Your task to perform on an android device: toggle airplane mode Image 0: 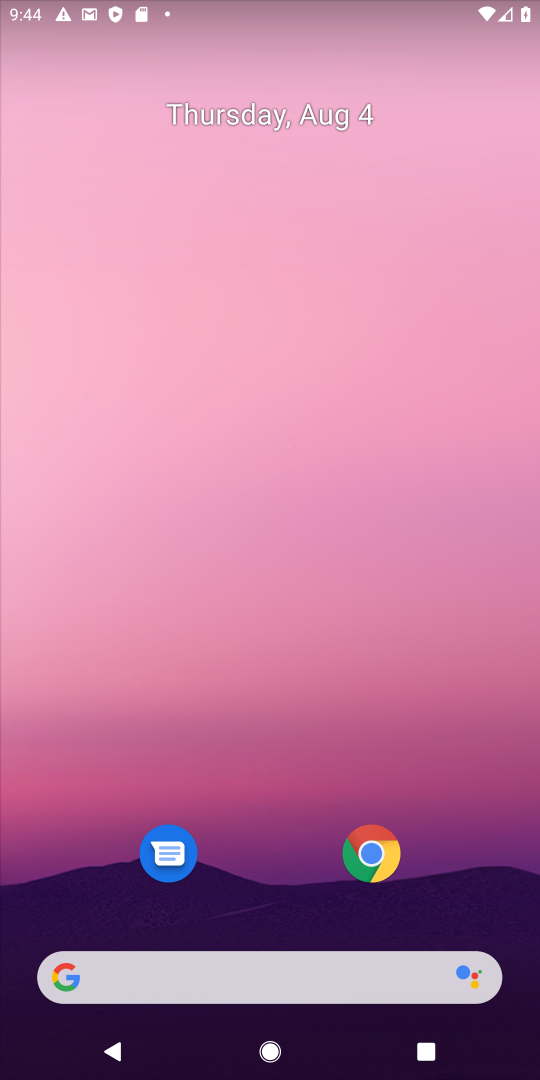
Step 0: drag from (266, 879) to (362, 194)
Your task to perform on an android device: toggle airplane mode Image 1: 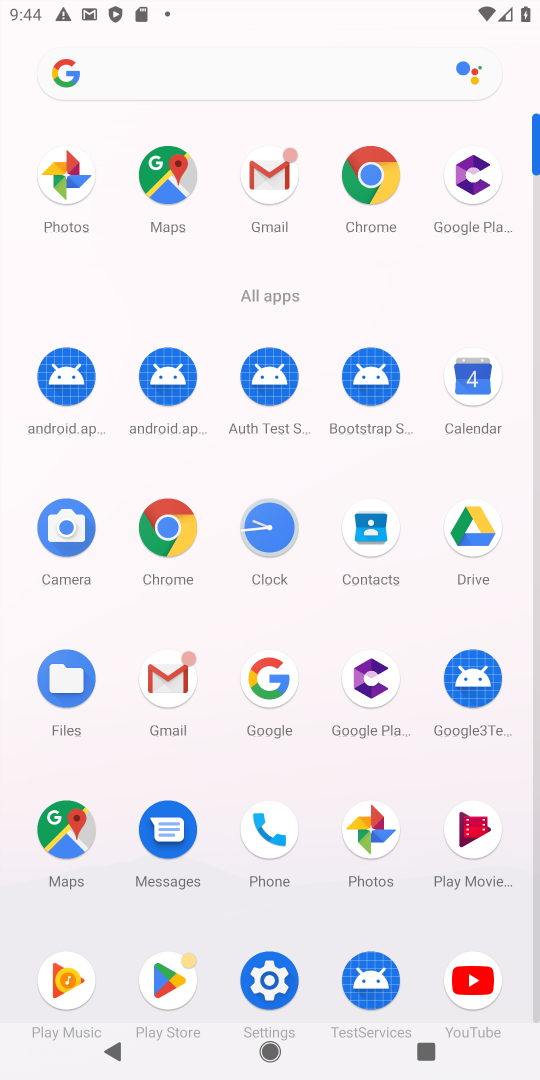
Step 1: click (274, 974)
Your task to perform on an android device: toggle airplane mode Image 2: 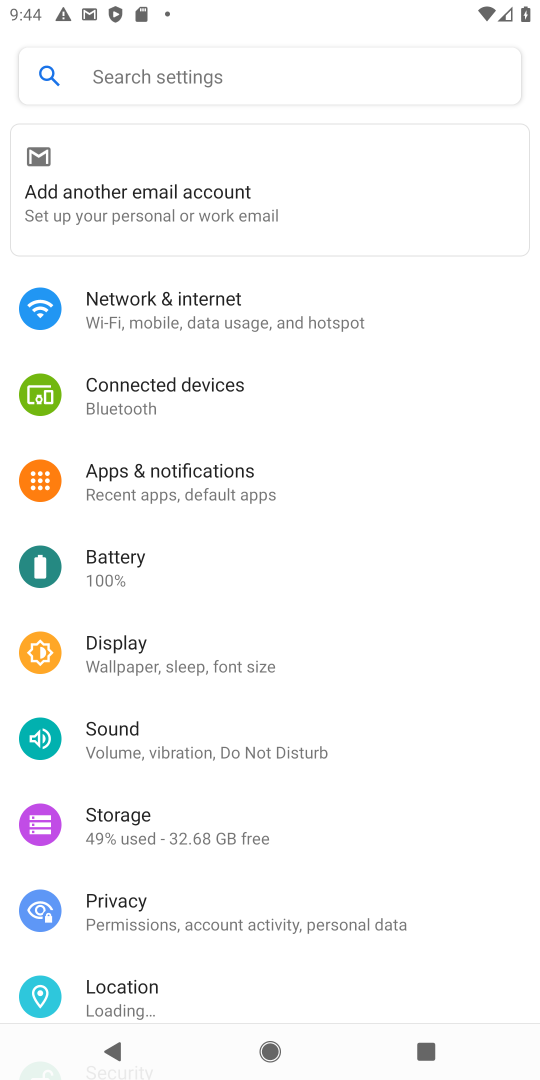
Step 2: click (195, 319)
Your task to perform on an android device: toggle airplane mode Image 3: 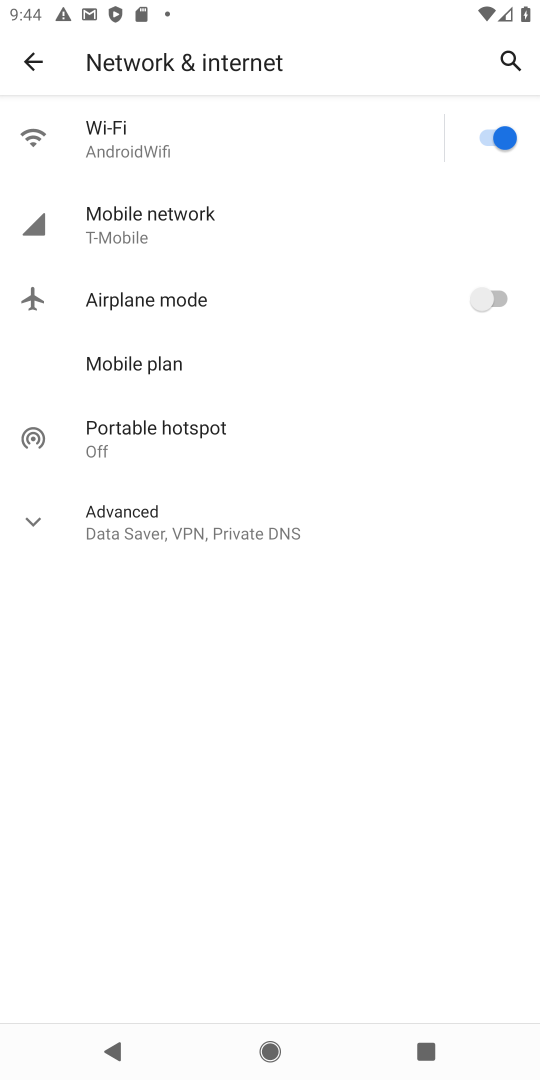
Step 3: click (502, 294)
Your task to perform on an android device: toggle airplane mode Image 4: 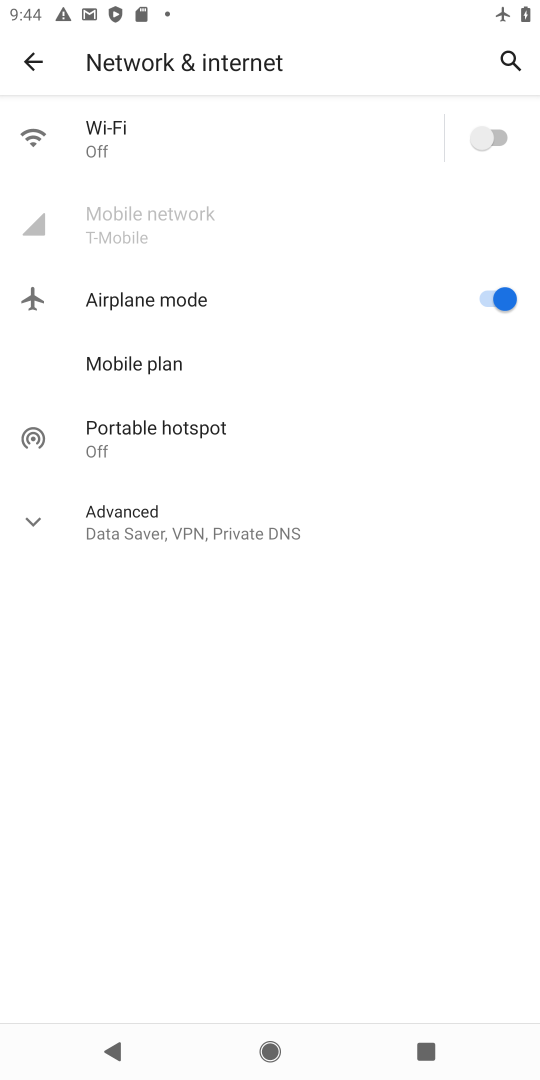
Step 4: task complete